Your task to perform on an android device: What's on my calendar tomorrow? Image 0: 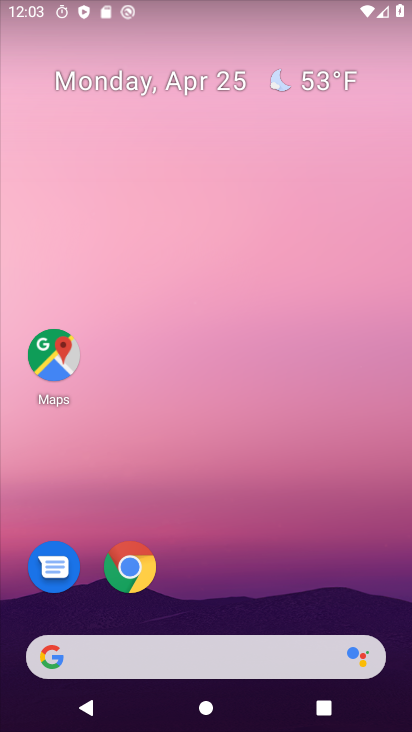
Step 0: drag from (334, 584) to (360, 89)
Your task to perform on an android device: What's on my calendar tomorrow? Image 1: 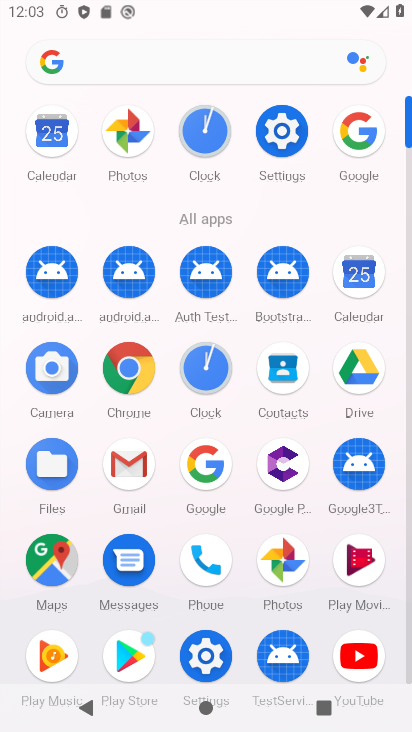
Step 1: click (52, 135)
Your task to perform on an android device: What's on my calendar tomorrow? Image 2: 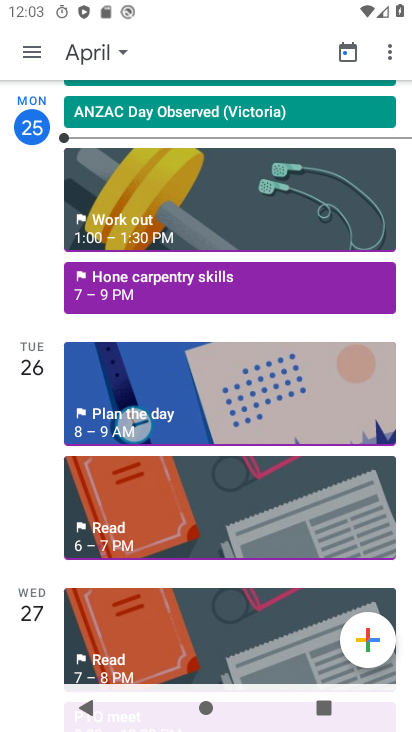
Step 2: click (269, 433)
Your task to perform on an android device: What's on my calendar tomorrow? Image 3: 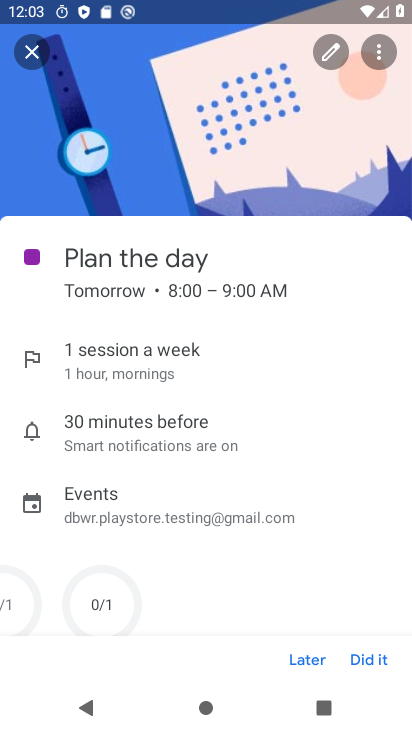
Step 3: task complete